Your task to perform on an android device: change the clock style Image 0: 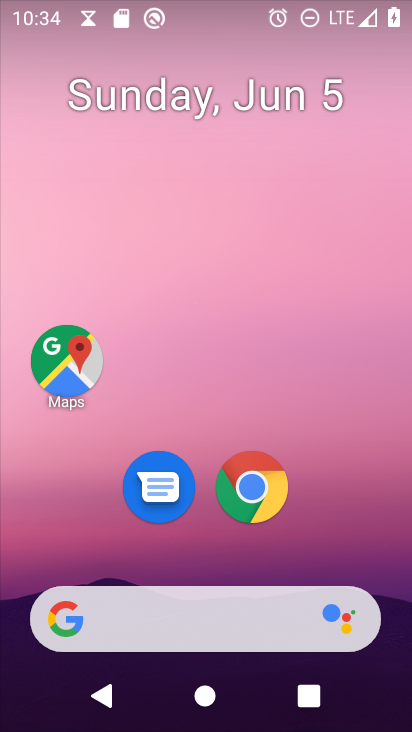
Step 0: drag from (316, 463) to (305, 234)
Your task to perform on an android device: change the clock style Image 1: 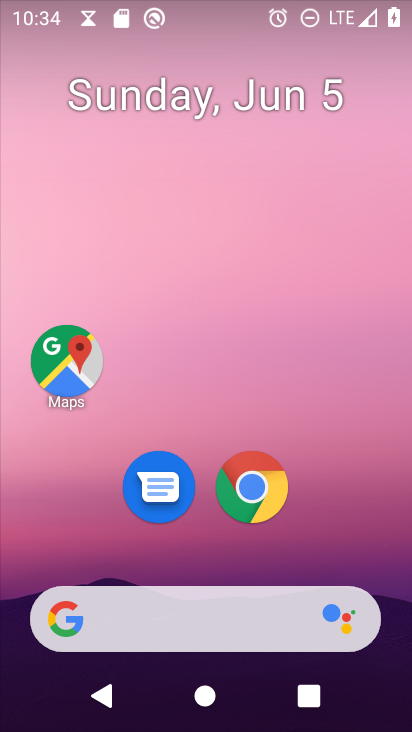
Step 1: drag from (201, 538) to (189, 167)
Your task to perform on an android device: change the clock style Image 2: 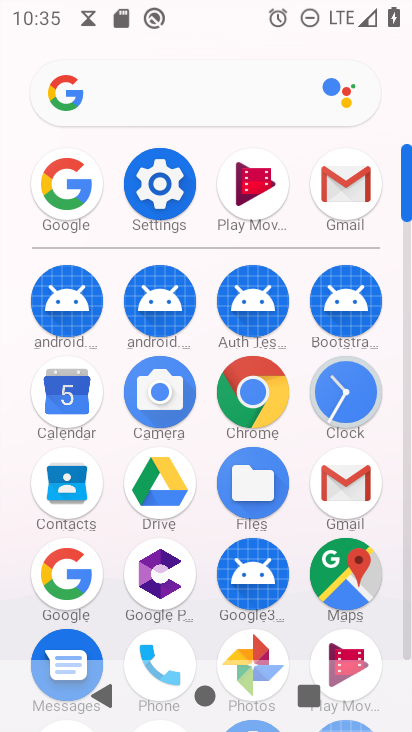
Step 2: click (362, 381)
Your task to perform on an android device: change the clock style Image 3: 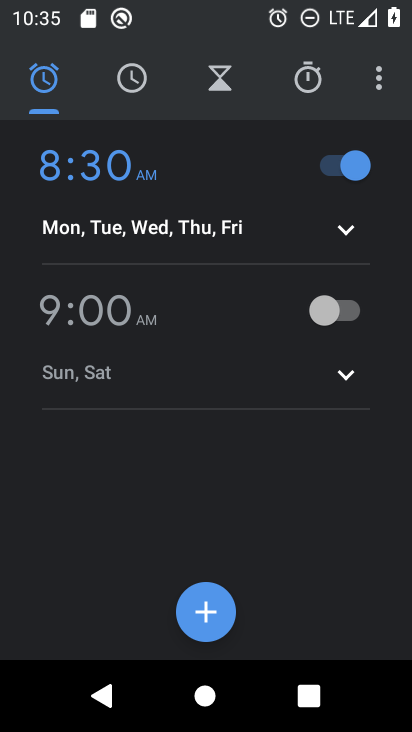
Step 3: click (373, 79)
Your task to perform on an android device: change the clock style Image 4: 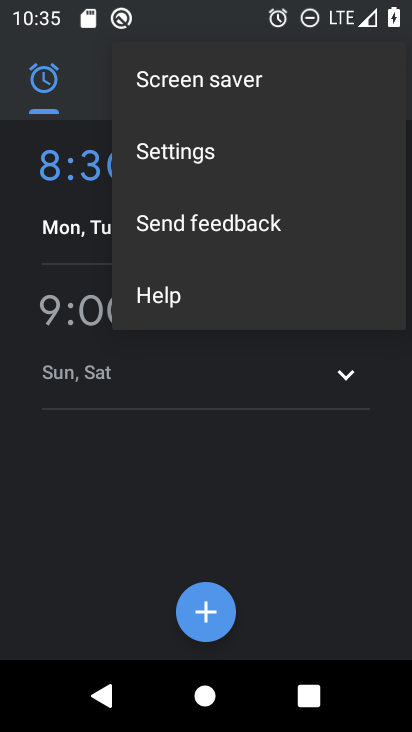
Step 4: click (214, 157)
Your task to perform on an android device: change the clock style Image 5: 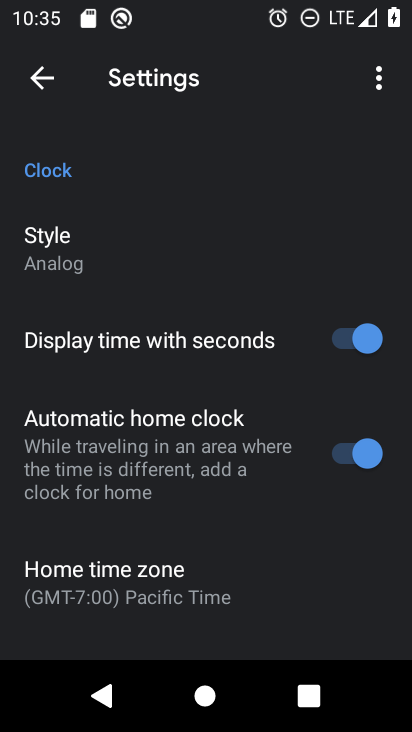
Step 5: click (51, 255)
Your task to perform on an android device: change the clock style Image 6: 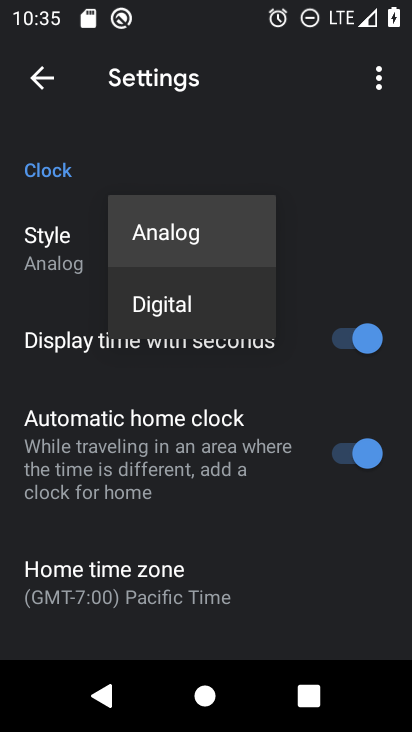
Step 6: click (162, 295)
Your task to perform on an android device: change the clock style Image 7: 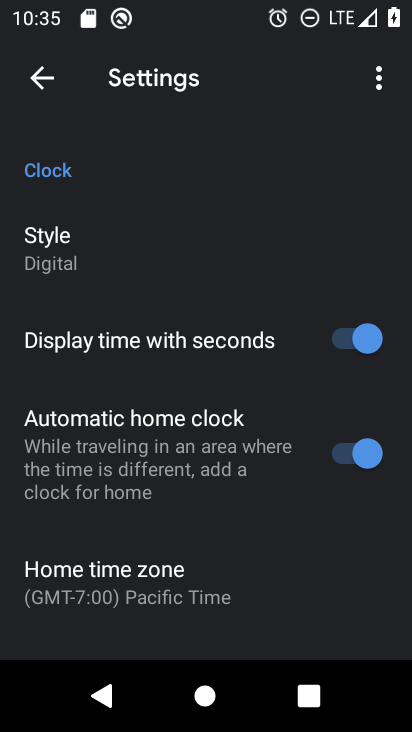
Step 7: task complete